Your task to perform on an android device: clear all cookies in the chrome app Image 0: 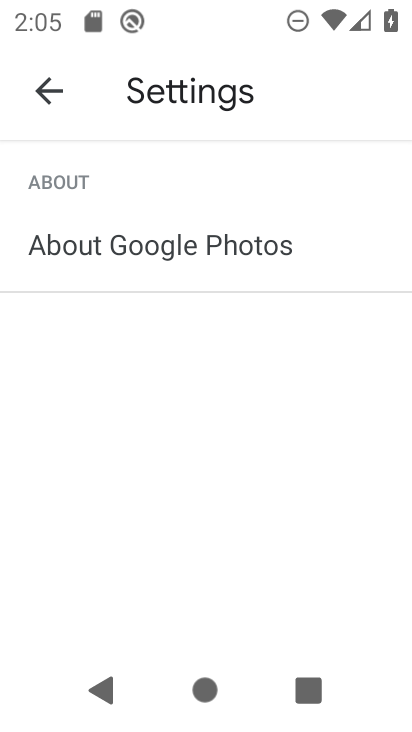
Step 0: press home button
Your task to perform on an android device: clear all cookies in the chrome app Image 1: 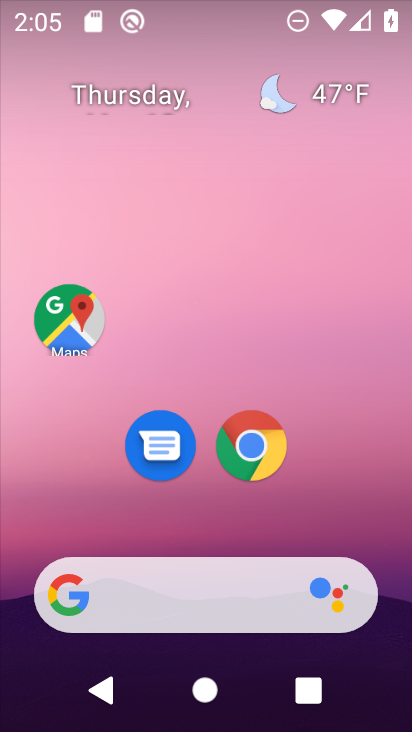
Step 1: click (242, 456)
Your task to perform on an android device: clear all cookies in the chrome app Image 2: 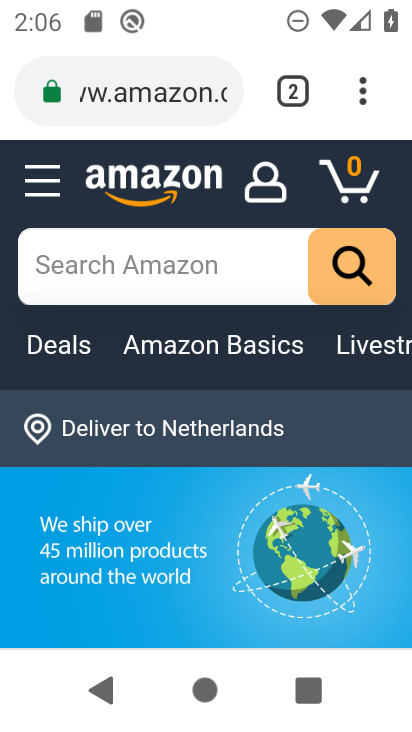
Step 2: click (359, 75)
Your task to perform on an android device: clear all cookies in the chrome app Image 3: 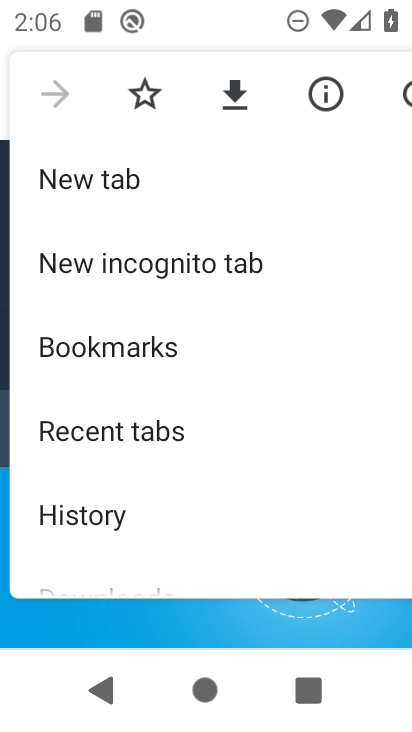
Step 3: drag from (180, 532) to (216, 330)
Your task to perform on an android device: clear all cookies in the chrome app Image 4: 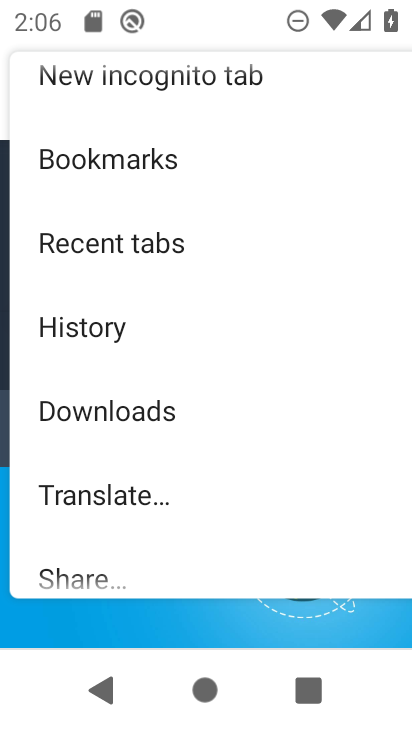
Step 4: drag from (172, 481) to (274, 269)
Your task to perform on an android device: clear all cookies in the chrome app Image 5: 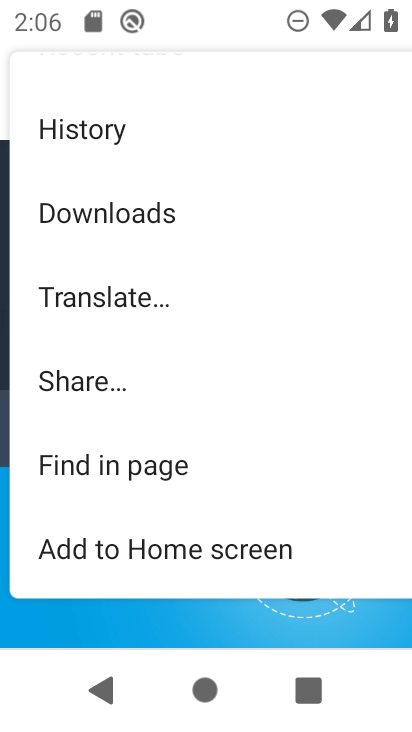
Step 5: drag from (178, 475) to (299, 234)
Your task to perform on an android device: clear all cookies in the chrome app Image 6: 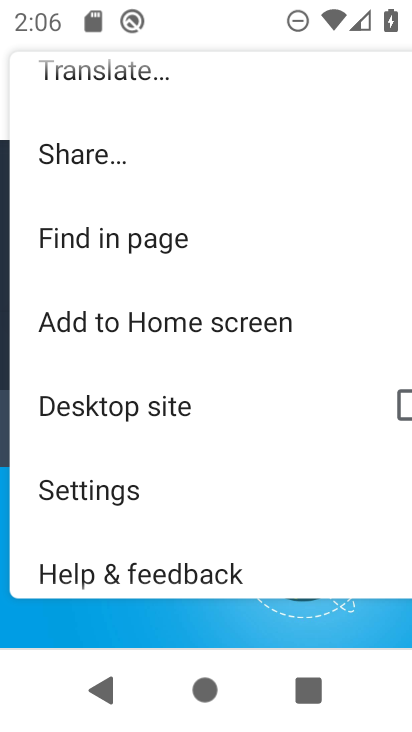
Step 6: drag from (240, 466) to (251, 330)
Your task to perform on an android device: clear all cookies in the chrome app Image 7: 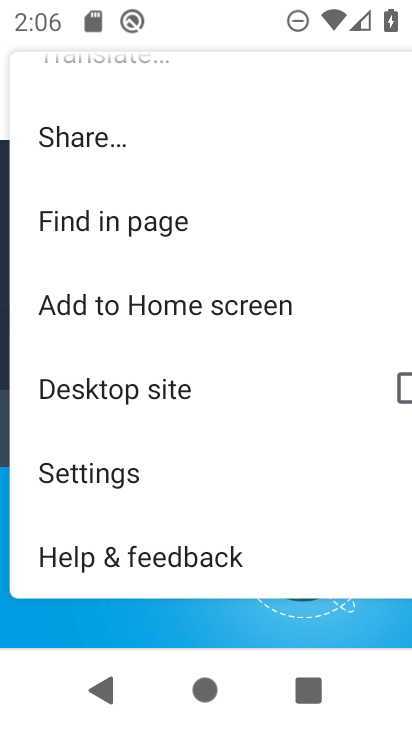
Step 7: click (135, 458)
Your task to perform on an android device: clear all cookies in the chrome app Image 8: 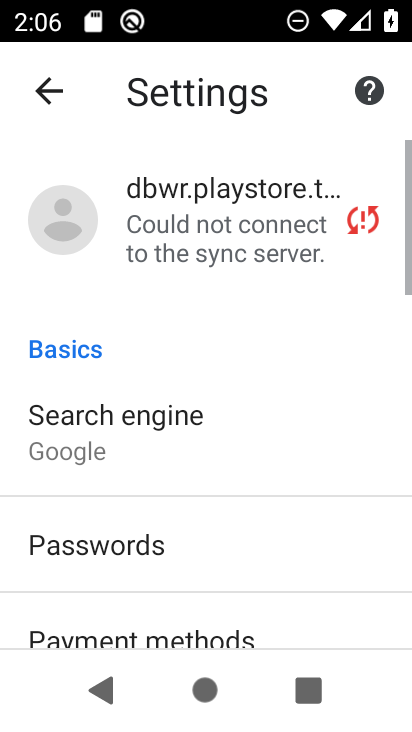
Step 8: drag from (218, 550) to (302, 278)
Your task to perform on an android device: clear all cookies in the chrome app Image 9: 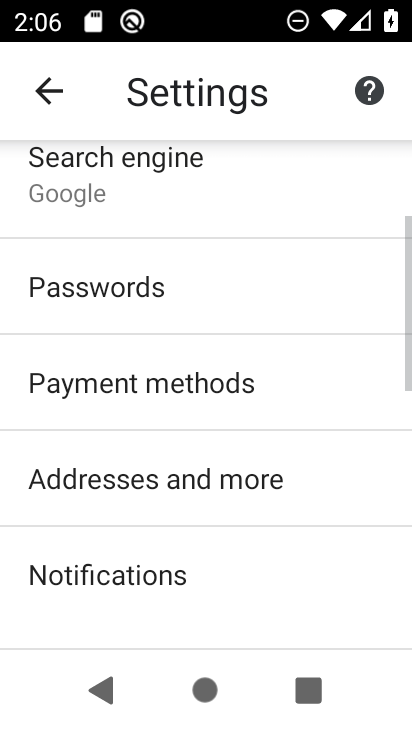
Step 9: drag from (262, 529) to (306, 535)
Your task to perform on an android device: clear all cookies in the chrome app Image 10: 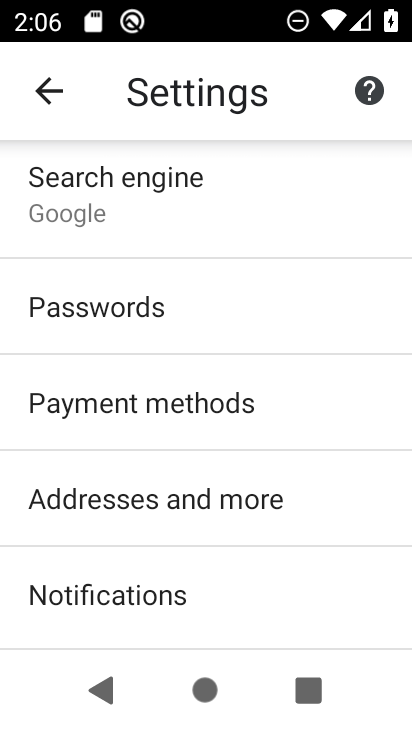
Step 10: click (52, 101)
Your task to perform on an android device: clear all cookies in the chrome app Image 11: 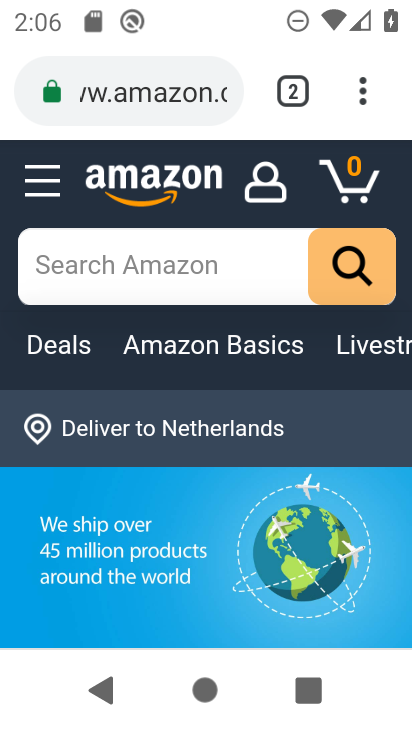
Step 11: click (370, 95)
Your task to perform on an android device: clear all cookies in the chrome app Image 12: 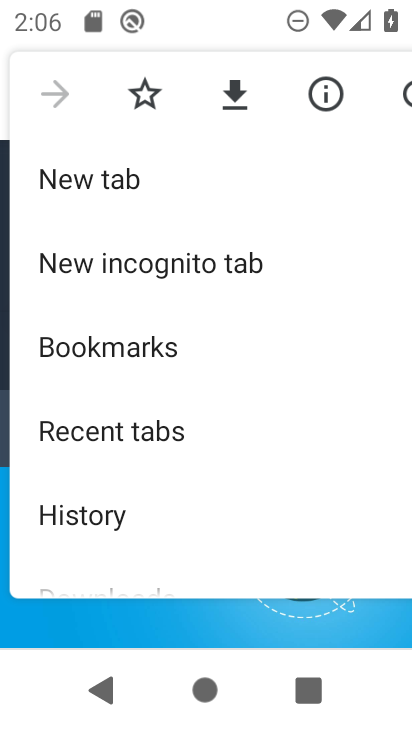
Step 12: drag from (199, 466) to (243, 297)
Your task to perform on an android device: clear all cookies in the chrome app Image 13: 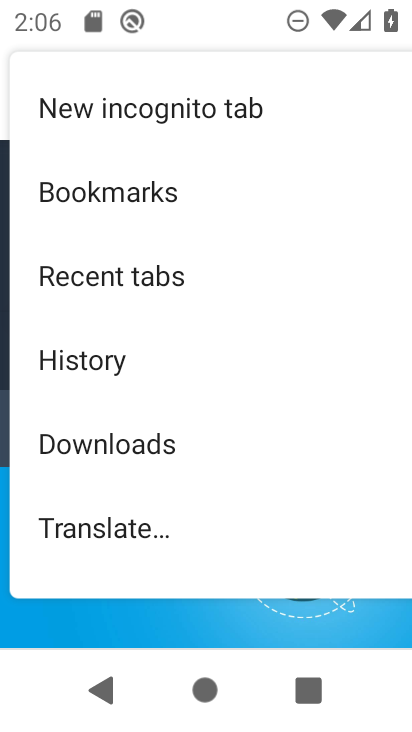
Step 13: click (118, 361)
Your task to perform on an android device: clear all cookies in the chrome app Image 14: 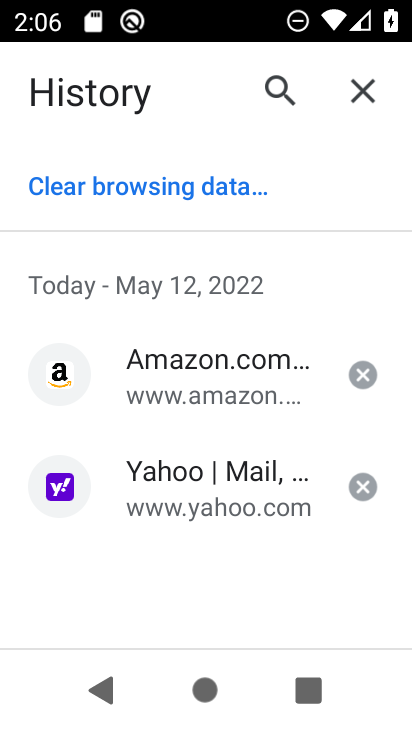
Step 14: click (158, 196)
Your task to perform on an android device: clear all cookies in the chrome app Image 15: 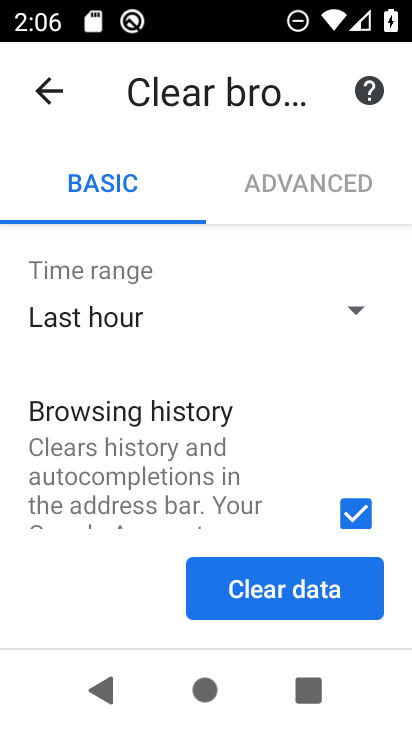
Step 15: drag from (210, 454) to (244, 233)
Your task to perform on an android device: clear all cookies in the chrome app Image 16: 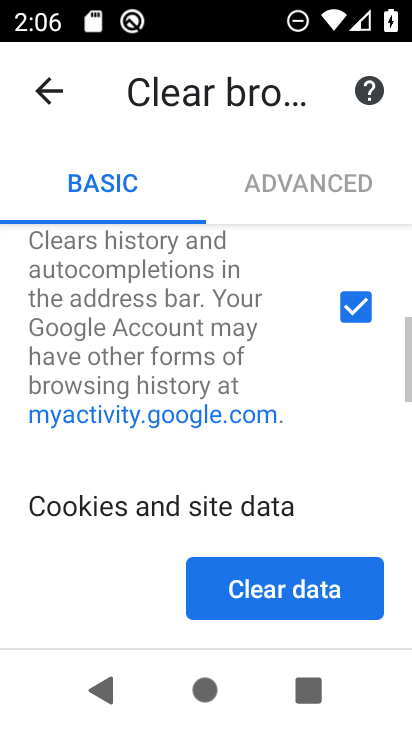
Step 16: drag from (265, 430) to (313, 211)
Your task to perform on an android device: clear all cookies in the chrome app Image 17: 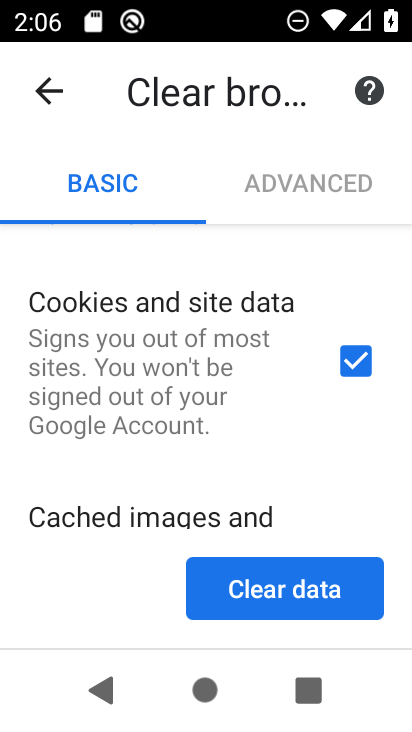
Step 17: drag from (260, 456) to (281, 267)
Your task to perform on an android device: clear all cookies in the chrome app Image 18: 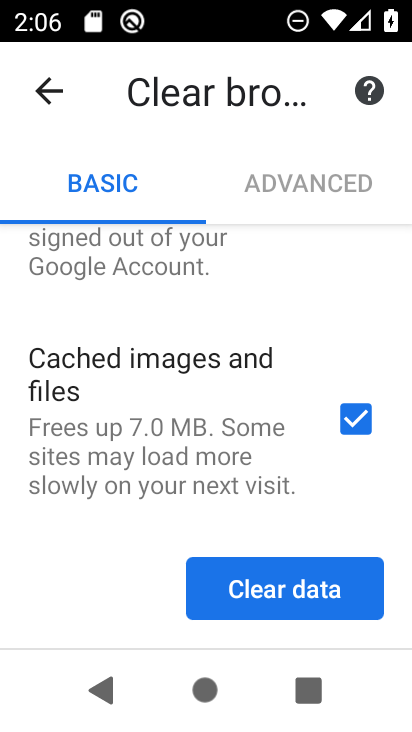
Step 18: click (276, 579)
Your task to perform on an android device: clear all cookies in the chrome app Image 19: 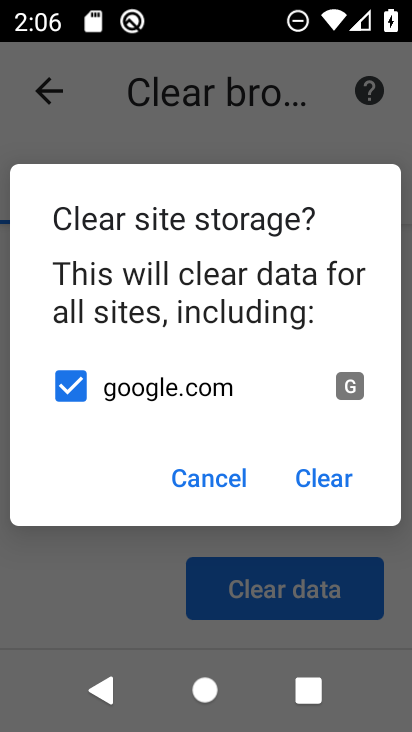
Step 19: click (337, 469)
Your task to perform on an android device: clear all cookies in the chrome app Image 20: 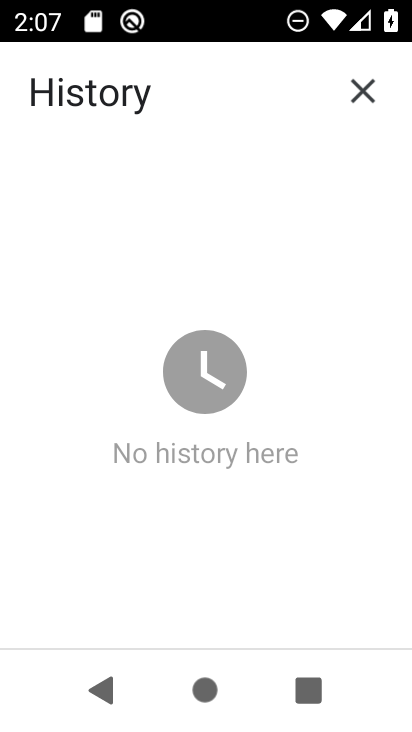
Step 20: task complete